Your task to perform on an android device: What is the recent news? Image 0: 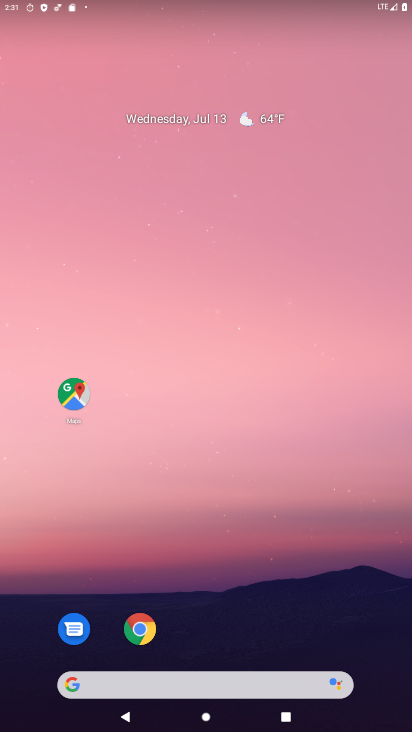
Step 0: drag from (178, 677) to (319, 10)
Your task to perform on an android device: What is the recent news? Image 1: 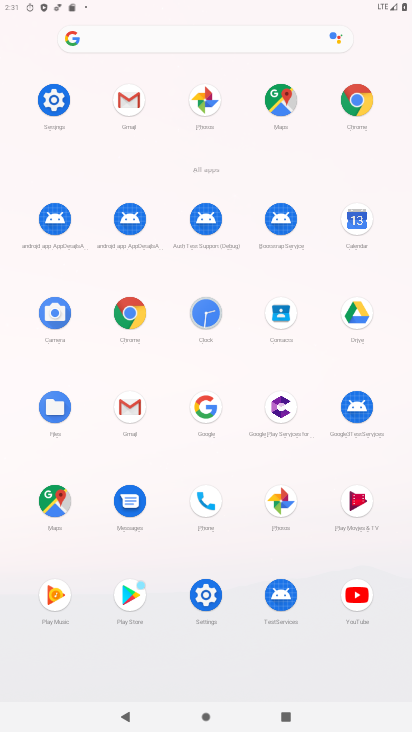
Step 1: click (126, 303)
Your task to perform on an android device: What is the recent news? Image 2: 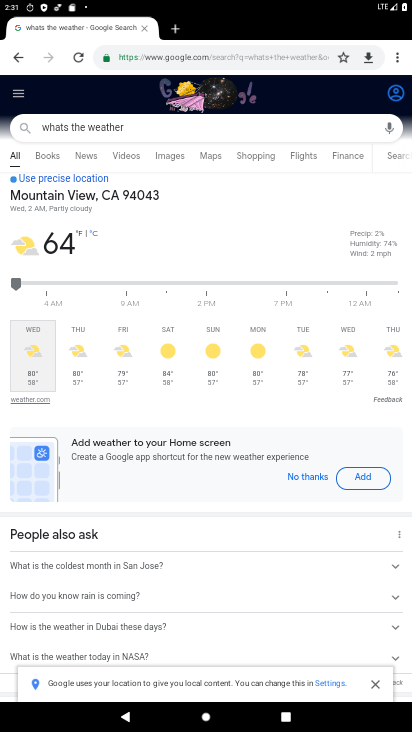
Step 2: click (259, 56)
Your task to perform on an android device: What is the recent news? Image 3: 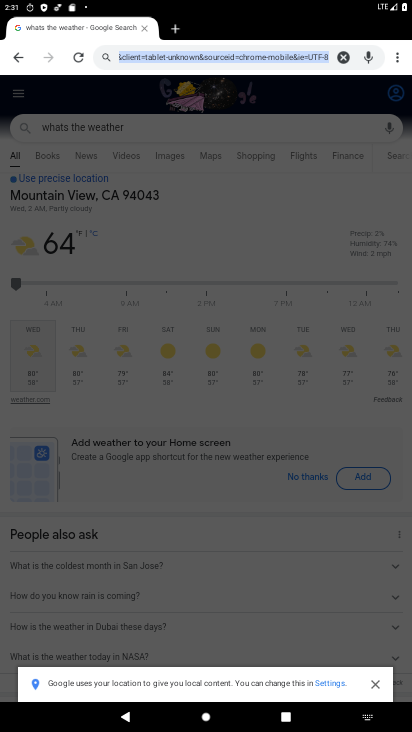
Step 3: type "recent news"
Your task to perform on an android device: What is the recent news? Image 4: 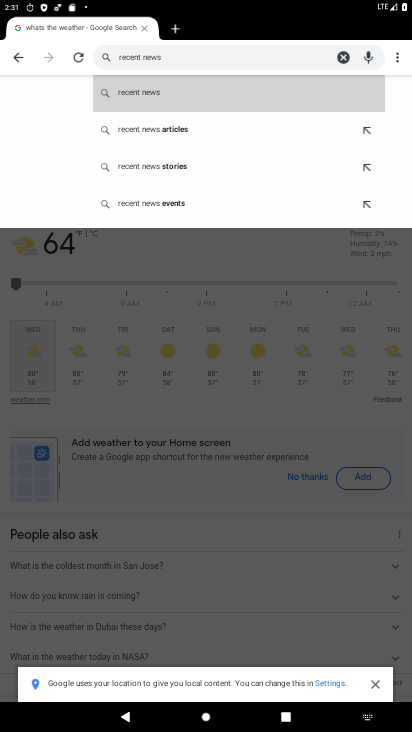
Step 4: click (144, 93)
Your task to perform on an android device: What is the recent news? Image 5: 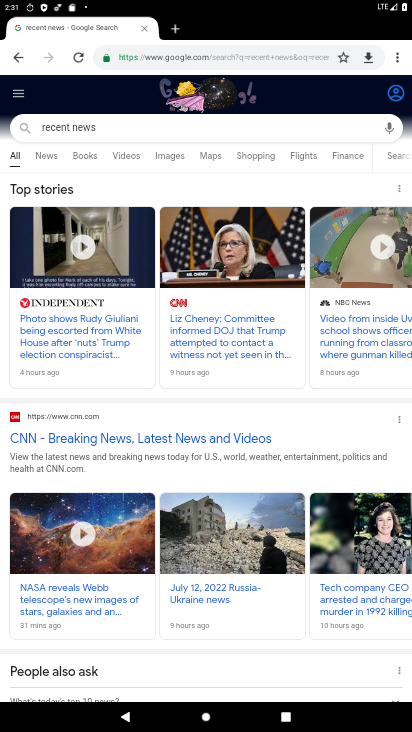
Step 5: task complete